Your task to perform on an android device: Open Wikipedia Image 0: 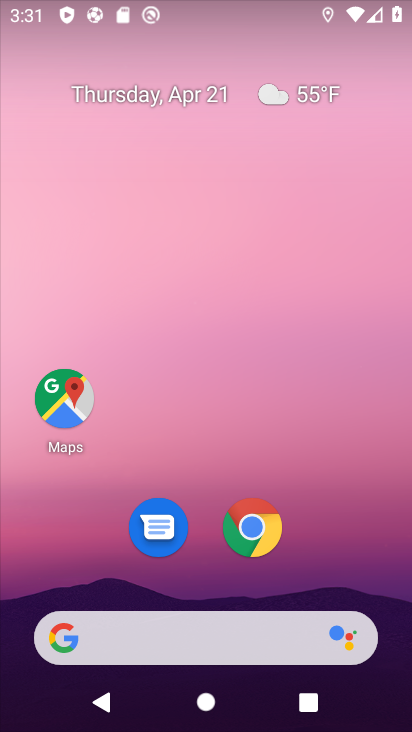
Step 0: click (259, 553)
Your task to perform on an android device: Open Wikipedia Image 1: 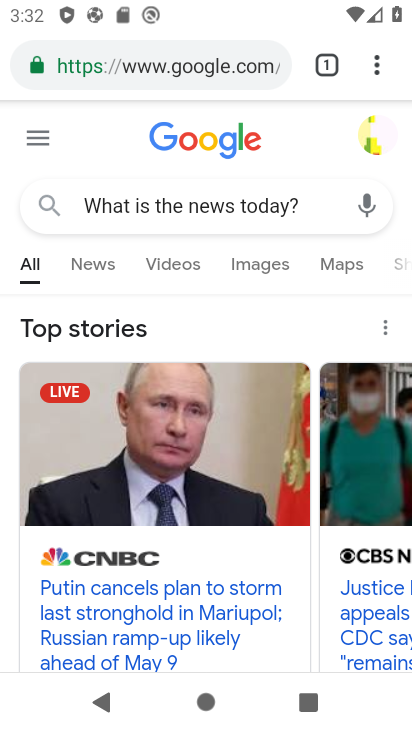
Step 1: click (331, 58)
Your task to perform on an android device: Open Wikipedia Image 2: 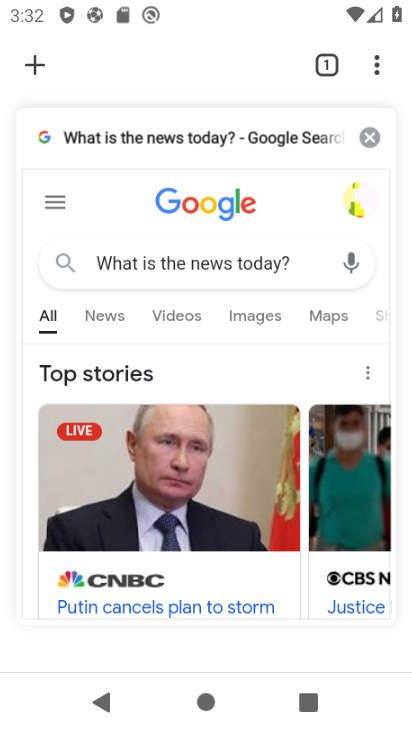
Step 2: click (33, 69)
Your task to perform on an android device: Open Wikipedia Image 3: 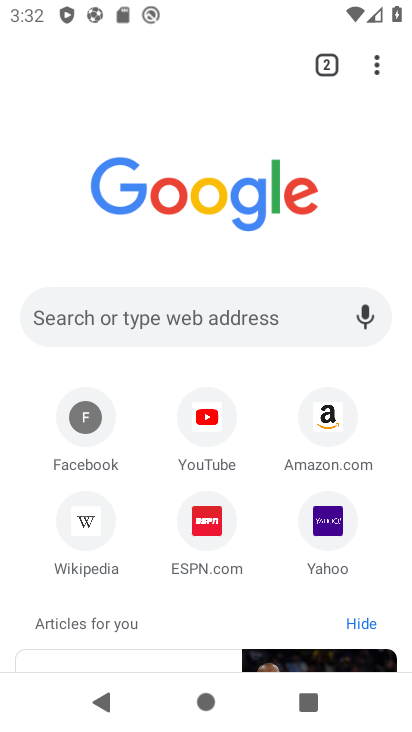
Step 3: click (101, 512)
Your task to perform on an android device: Open Wikipedia Image 4: 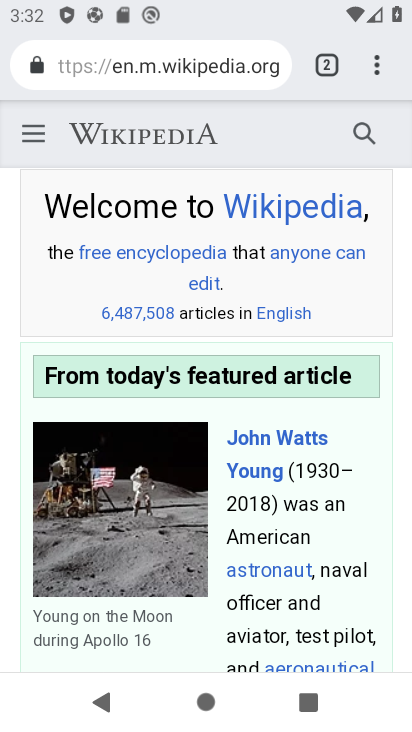
Step 4: task complete